Your task to perform on an android device: toggle pop-ups in chrome Image 0: 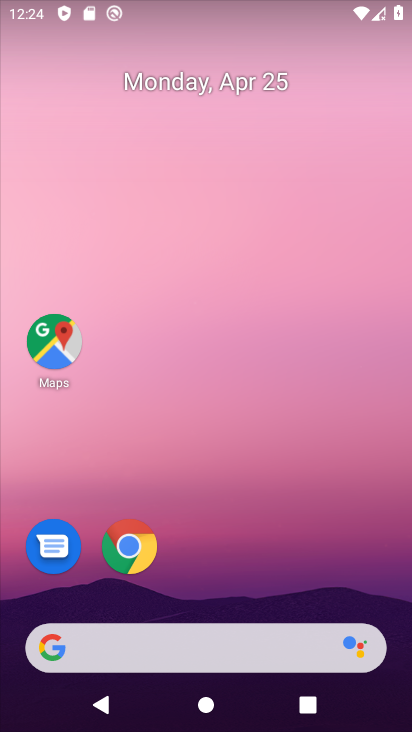
Step 0: click (129, 545)
Your task to perform on an android device: toggle pop-ups in chrome Image 1: 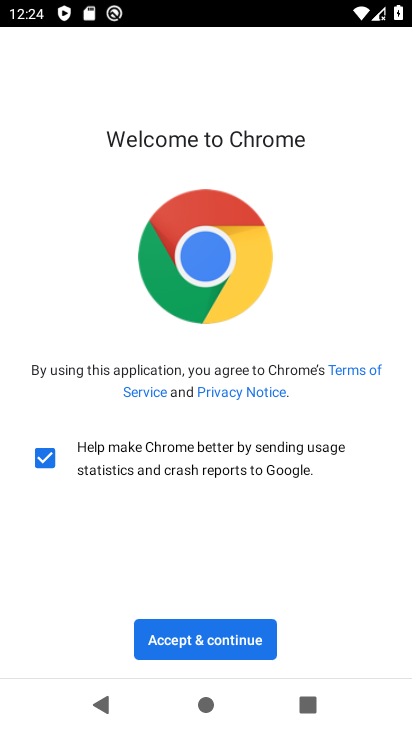
Step 1: click (177, 630)
Your task to perform on an android device: toggle pop-ups in chrome Image 2: 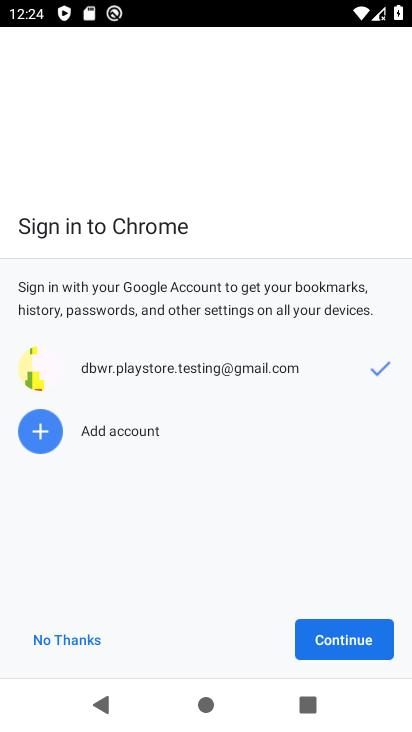
Step 2: click (356, 629)
Your task to perform on an android device: toggle pop-ups in chrome Image 3: 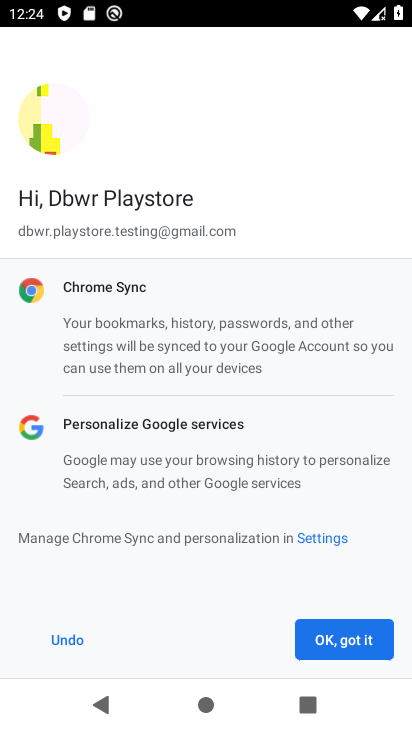
Step 3: click (350, 633)
Your task to perform on an android device: toggle pop-ups in chrome Image 4: 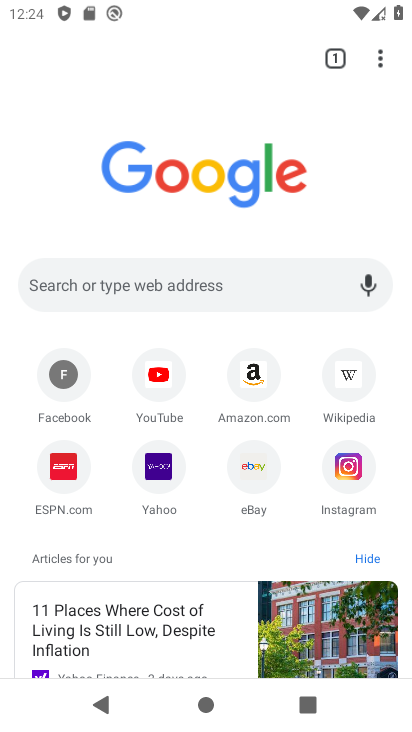
Step 4: click (383, 73)
Your task to perform on an android device: toggle pop-ups in chrome Image 5: 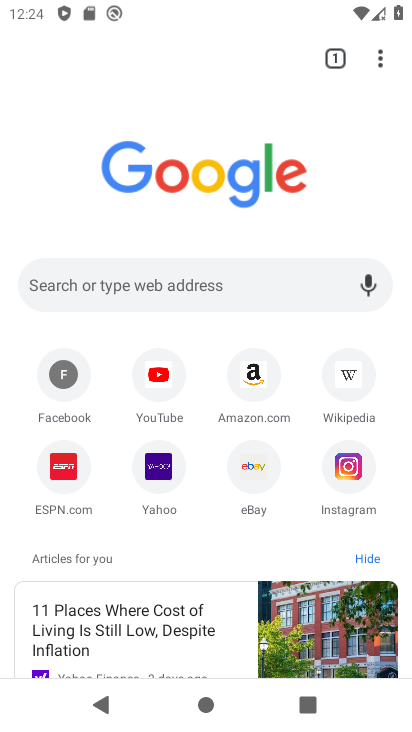
Step 5: click (381, 47)
Your task to perform on an android device: toggle pop-ups in chrome Image 6: 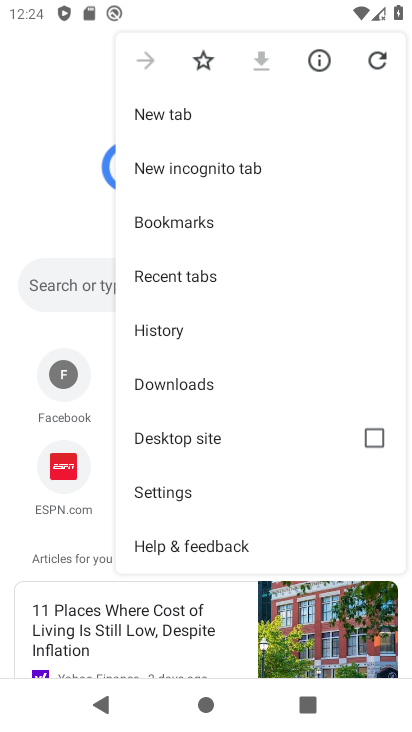
Step 6: click (172, 489)
Your task to perform on an android device: toggle pop-ups in chrome Image 7: 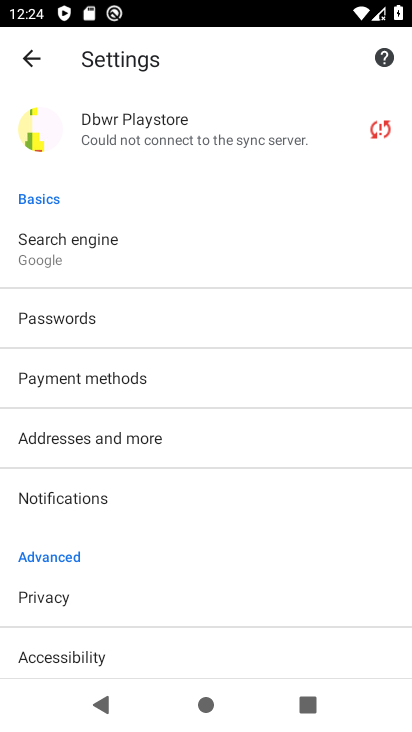
Step 7: drag from (118, 572) to (120, 243)
Your task to perform on an android device: toggle pop-ups in chrome Image 8: 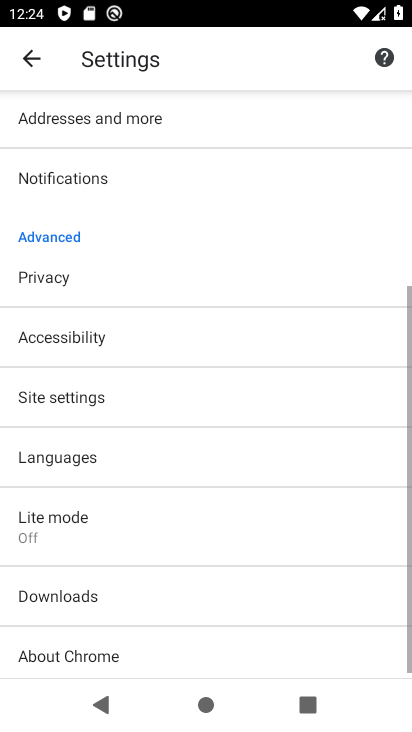
Step 8: drag from (55, 613) to (102, 288)
Your task to perform on an android device: toggle pop-ups in chrome Image 9: 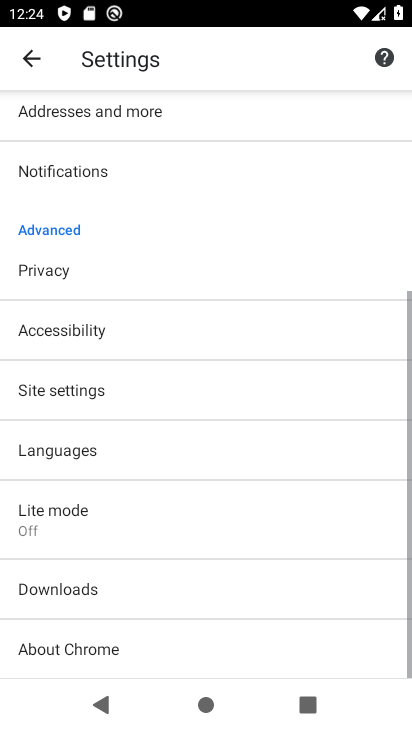
Step 9: click (177, 383)
Your task to perform on an android device: toggle pop-ups in chrome Image 10: 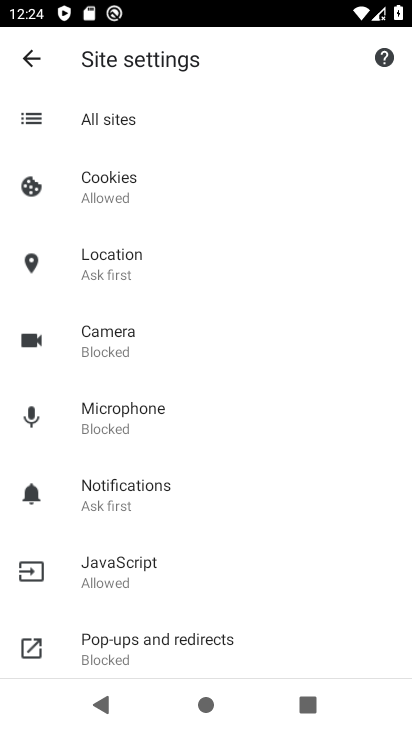
Step 10: drag from (163, 611) to (240, 145)
Your task to perform on an android device: toggle pop-ups in chrome Image 11: 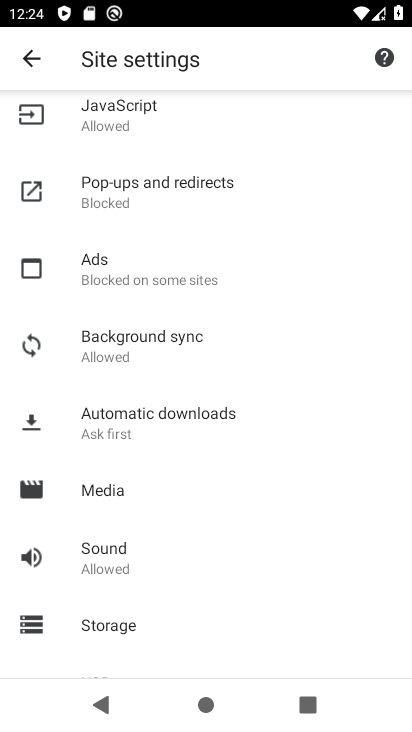
Step 11: click (151, 177)
Your task to perform on an android device: toggle pop-ups in chrome Image 12: 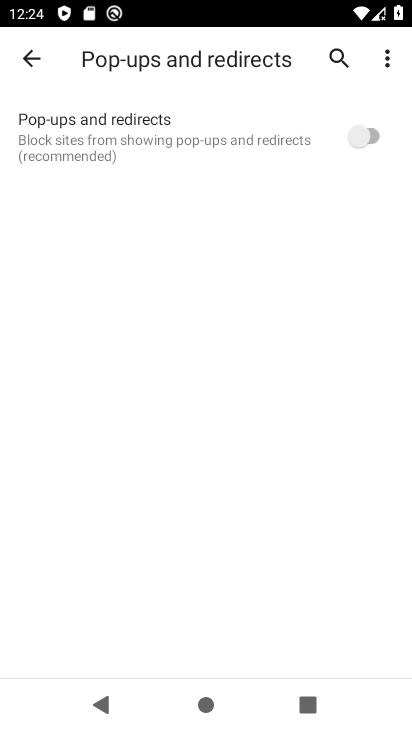
Step 12: click (371, 128)
Your task to perform on an android device: toggle pop-ups in chrome Image 13: 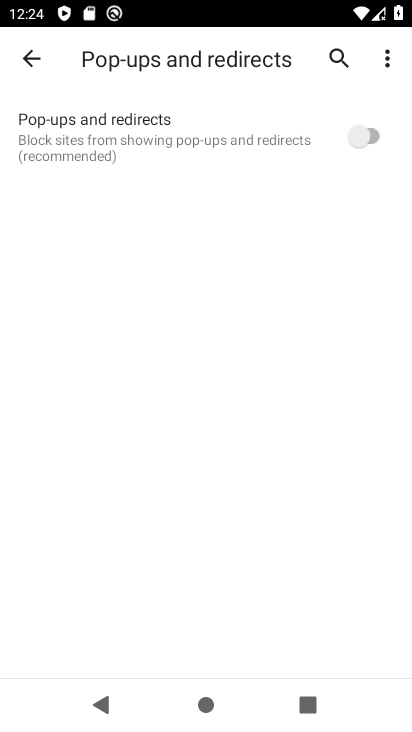
Step 13: click (371, 128)
Your task to perform on an android device: toggle pop-ups in chrome Image 14: 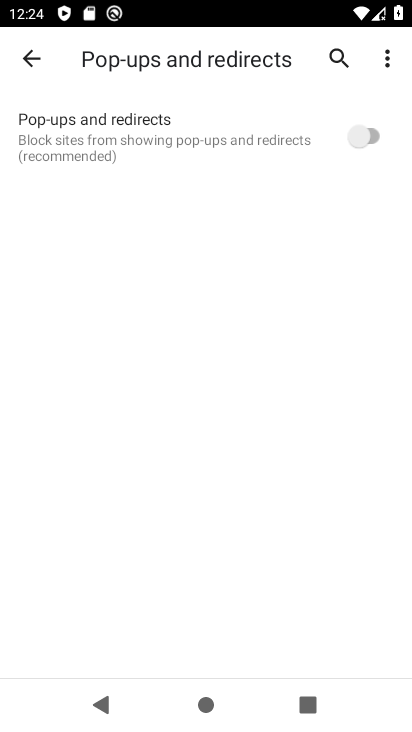
Step 14: click (371, 128)
Your task to perform on an android device: toggle pop-ups in chrome Image 15: 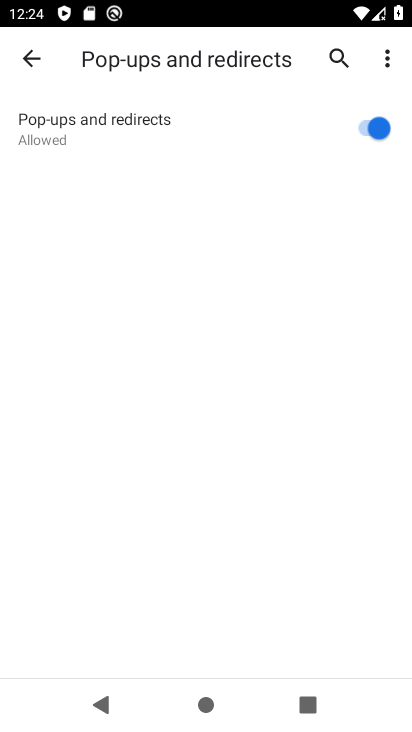
Step 15: task complete